Your task to perform on an android device: turn off sleep mode Image 0: 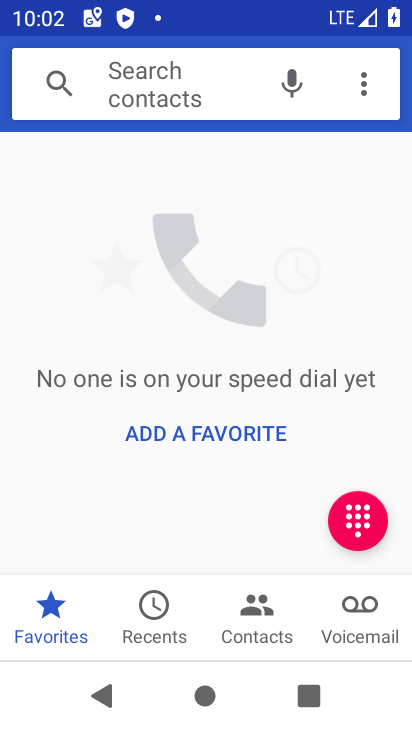
Step 0: press home button
Your task to perform on an android device: turn off sleep mode Image 1: 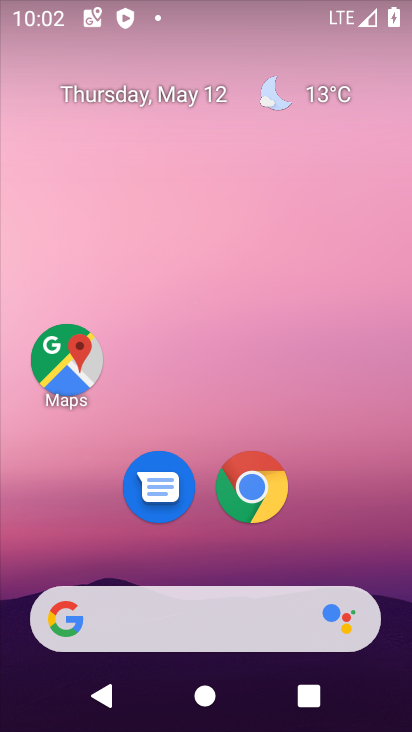
Step 1: drag from (385, 557) to (411, 401)
Your task to perform on an android device: turn off sleep mode Image 2: 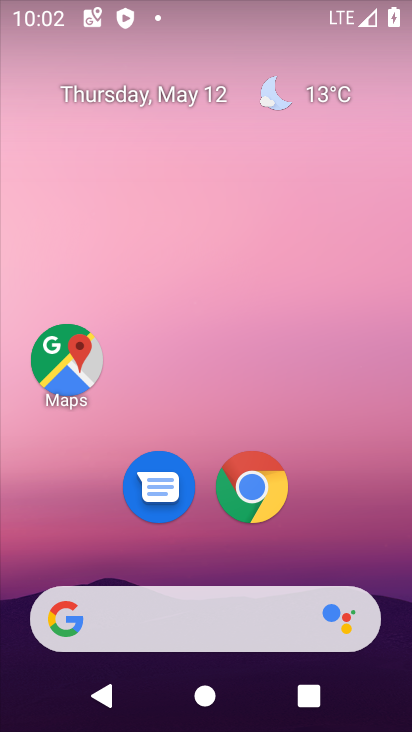
Step 2: drag from (373, 577) to (359, 12)
Your task to perform on an android device: turn off sleep mode Image 3: 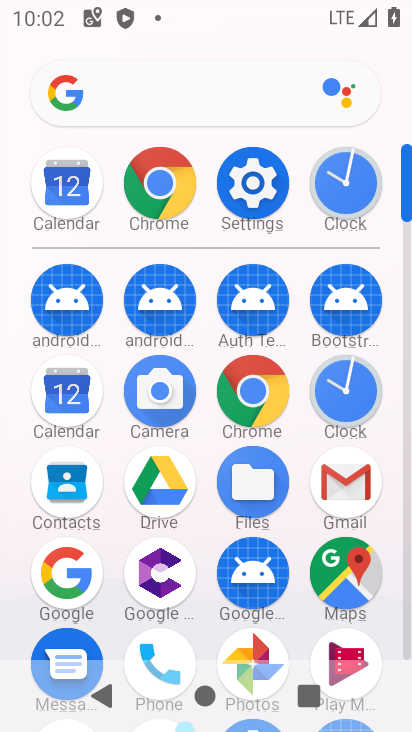
Step 3: click (247, 195)
Your task to perform on an android device: turn off sleep mode Image 4: 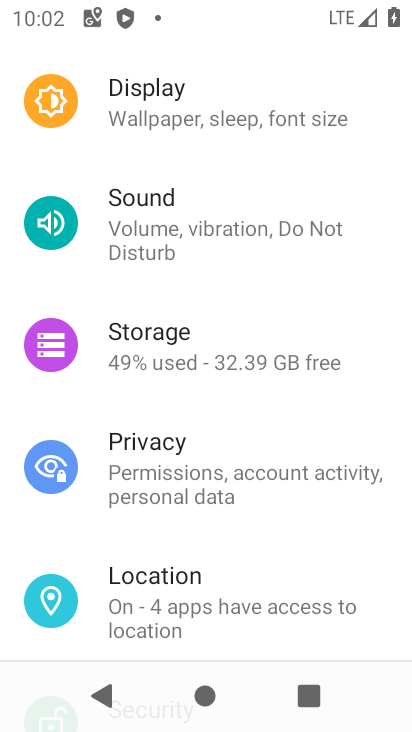
Step 4: click (173, 121)
Your task to perform on an android device: turn off sleep mode Image 5: 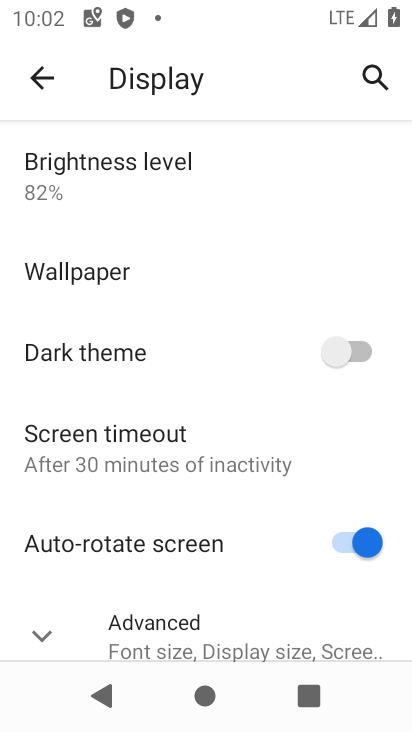
Step 5: click (39, 646)
Your task to perform on an android device: turn off sleep mode Image 6: 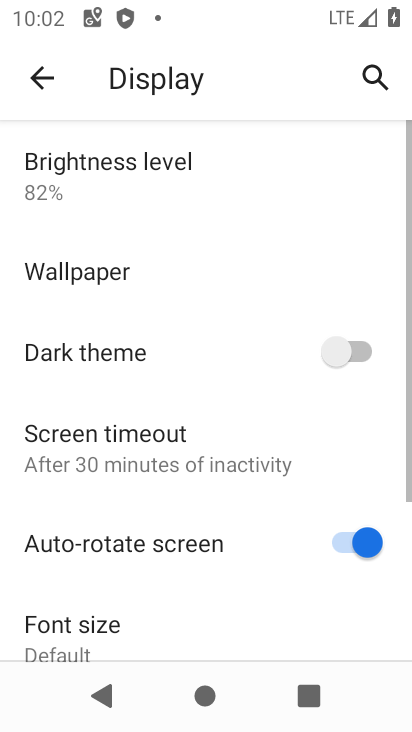
Step 6: task complete